Your task to perform on an android device: turn off airplane mode Image 0: 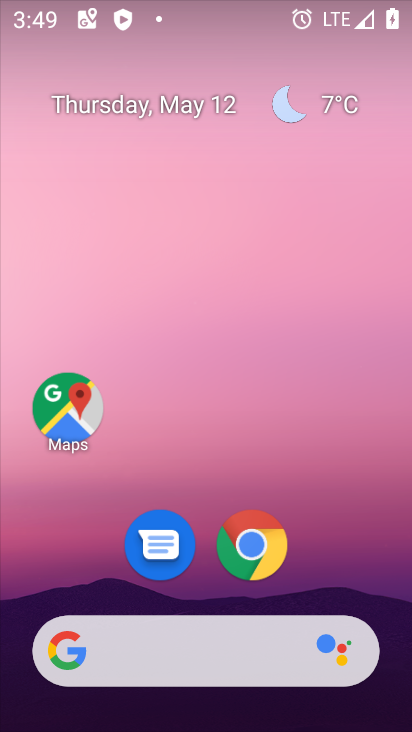
Step 0: drag from (391, 635) to (286, 140)
Your task to perform on an android device: turn off airplane mode Image 1: 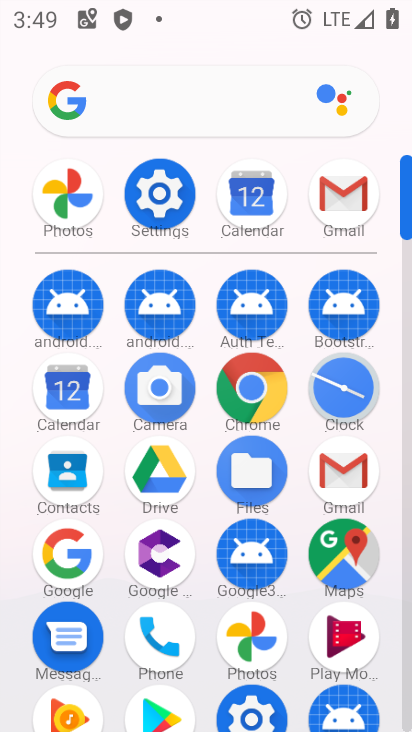
Step 1: click (408, 712)
Your task to perform on an android device: turn off airplane mode Image 2: 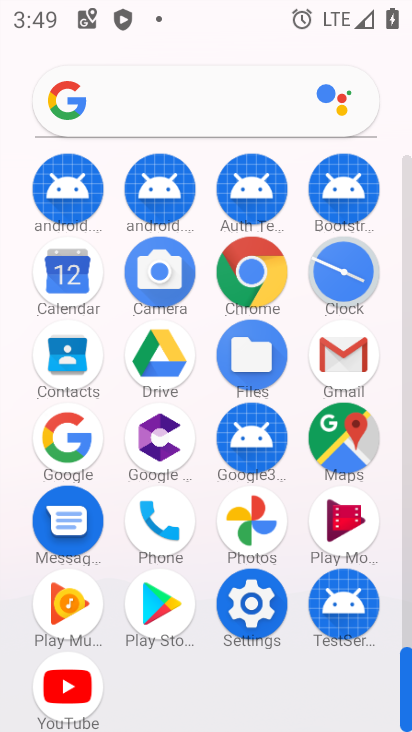
Step 2: click (250, 602)
Your task to perform on an android device: turn off airplane mode Image 3: 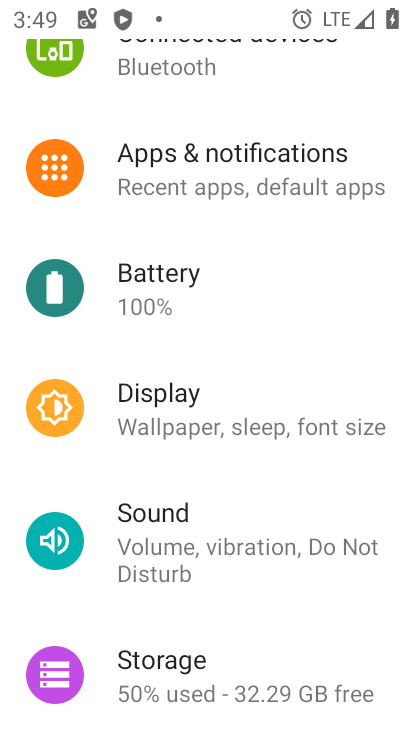
Step 3: drag from (315, 233) to (266, 620)
Your task to perform on an android device: turn off airplane mode Image 4: 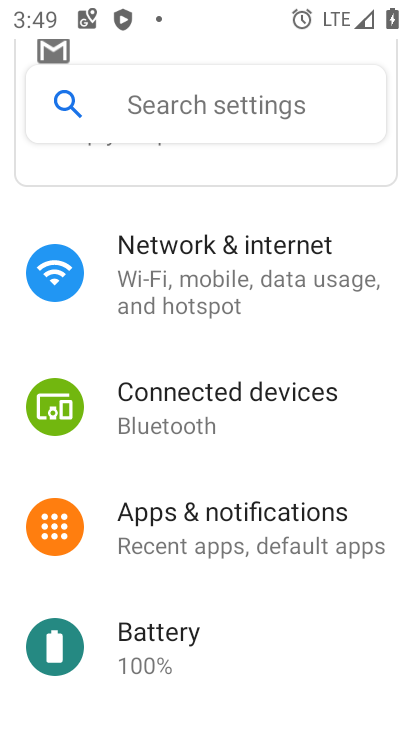
Step 4: click (180, 270)
Your task to perform on an android device: turn off airplane mode Image 5: 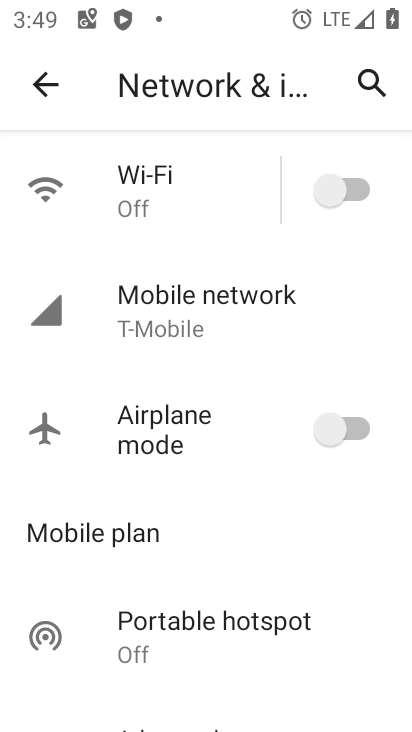
Step 5: task complete